Your task to perform on an android device: move an email to a new category in the gmail app Image 0: 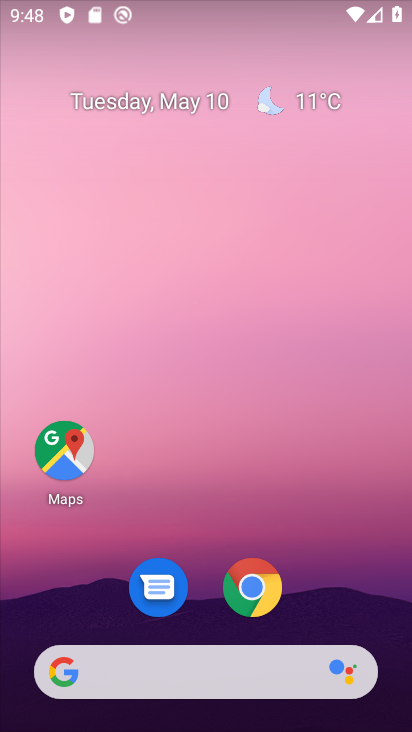
Step 0: drag from (199, 618) to (252, 133)
Your task to perform on an android device: move an email to a new category in the gmail app Image 1: 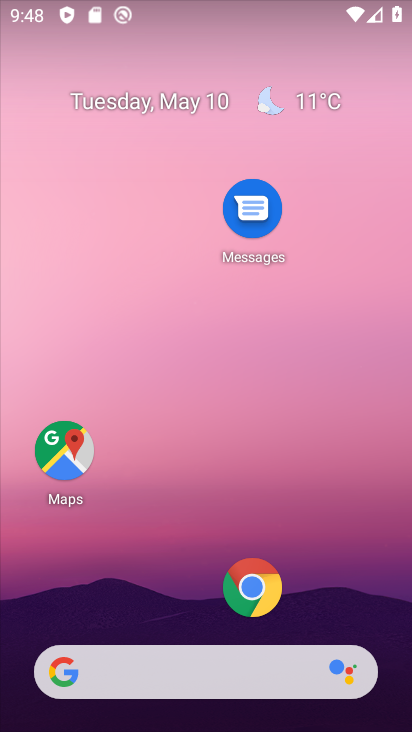
Step 1: drag from (180, 600) to (167, 36)
Your task to perform on an android device: move an email to a new category in the gmail app Image 2: 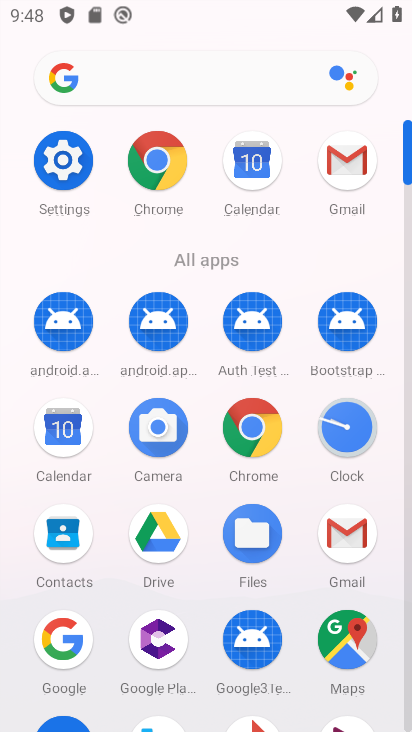
Step 2: click (342, 535)
Your task to perform on an android device: move an email to a new category in the gmail app Image 3: 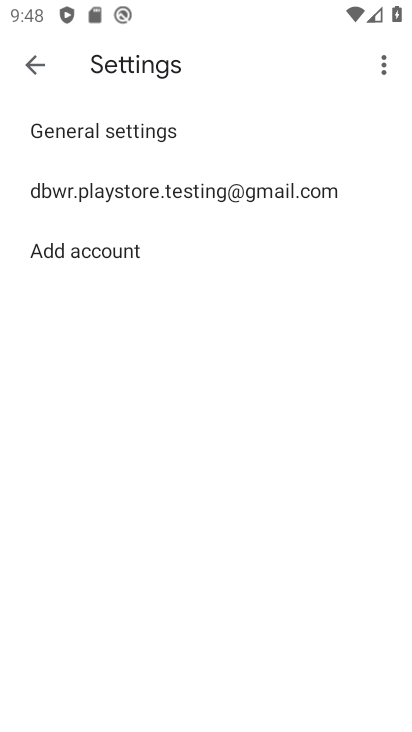
Step 3: click (48, 58)
Your task to perform on an android device: move an email to a new category in the gmail app Image 4: 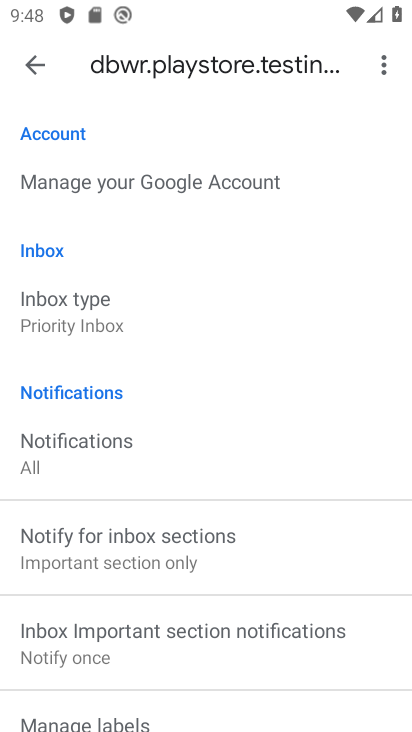
Step 4: click (38, 55)
Your task to perform on an android device: move an email to a new category in the gmail app Image 5: 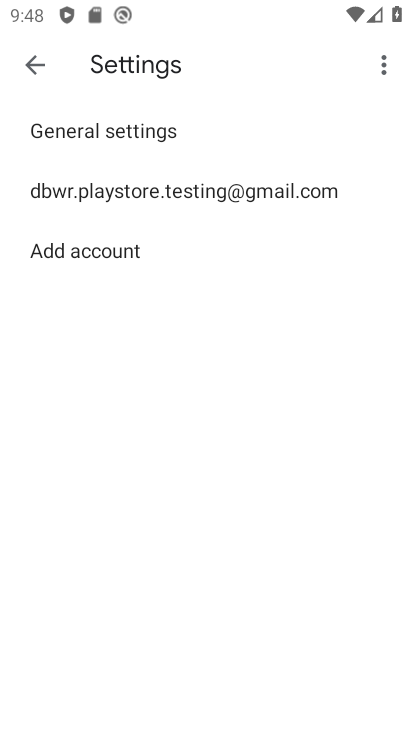
Step 5: click (19, 45)
Your task to perform on an android device: move an email to a new category in the gmail app Image 6: 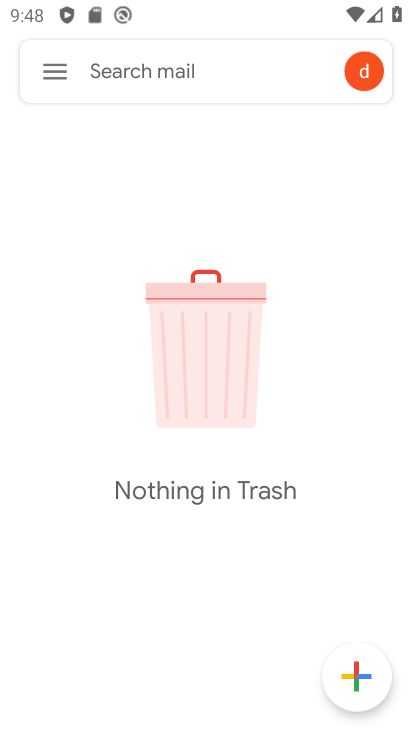
Step 6: click (50, 70)
Your task to perform on an android device: move an email to a new category in the gmail app Image 7: 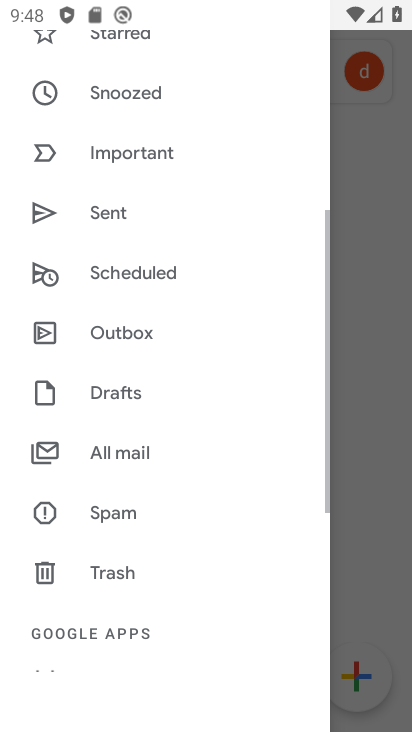
Step 7: click (149, 450)
Your task to perform on an android device: move an email to a new category in the gmail app Image 8: 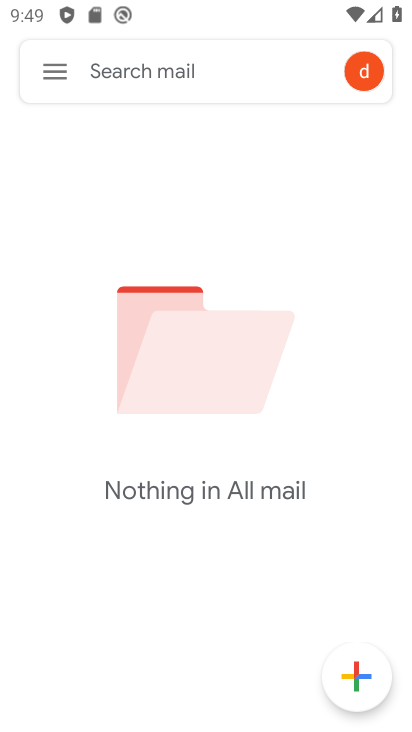
Step 8: task complete